Your task to perform on an android device: change notifications settings Image 0: 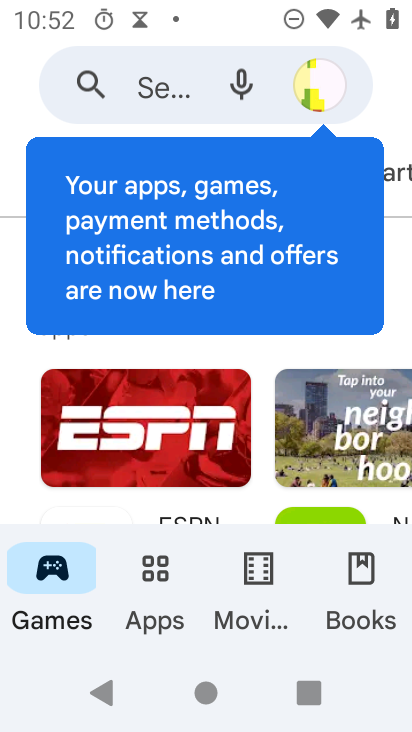
Step 0: press back button
Your task to perform on an android device: change notifications settings Image 1: 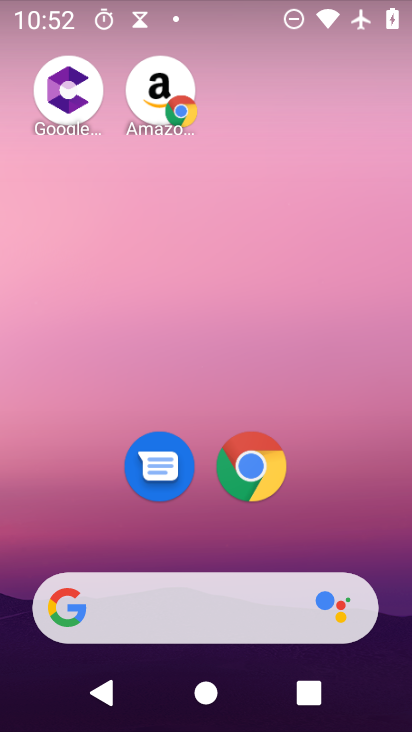
Step 1: drag from (411, 689) to (300, 55)
Your task to perform on an android device: change notifications settings Image 2: 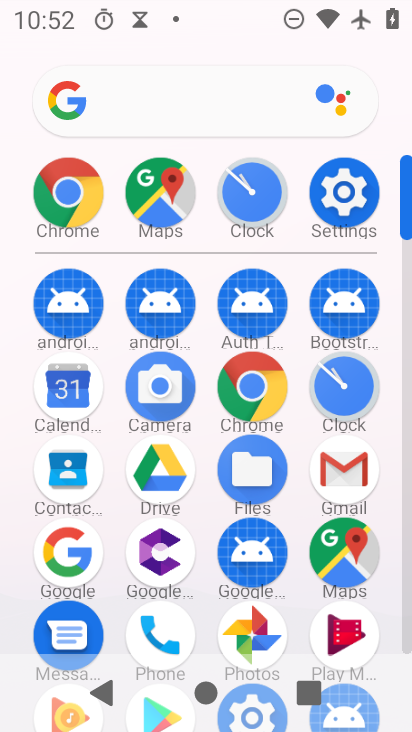
Step 2: click (344, 192)
Your task to perform on an android device: change notifications settings Image 3: 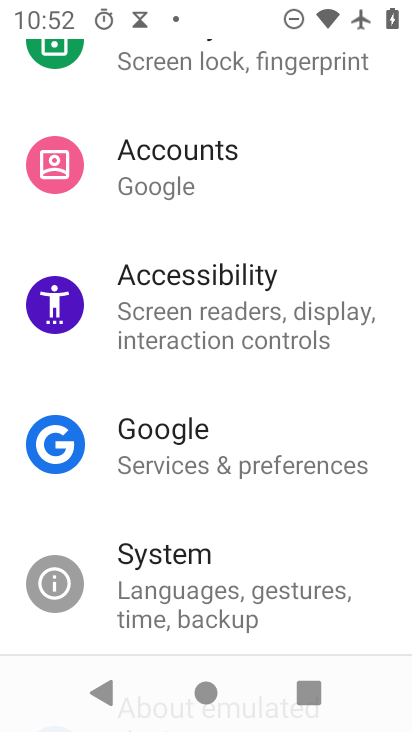
Step 3: drag from (256, 598) to (304, 131)
Your task to perform on an android device: change notifications settings Image 4: 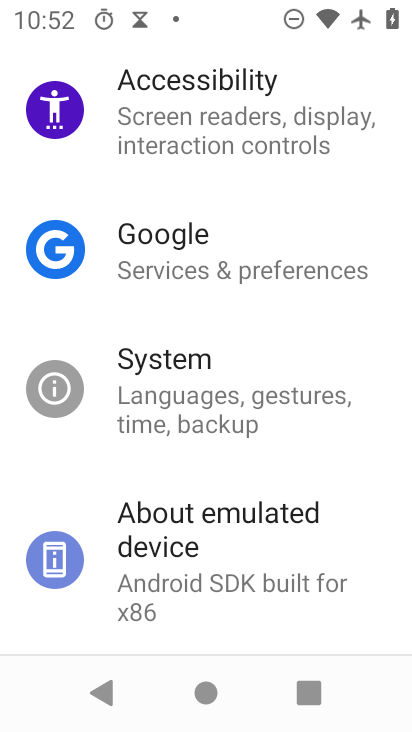
Step 4: drag from (301, 147) to (262, 564)
Your task to perform on an android device: change notifications settings Image 5: 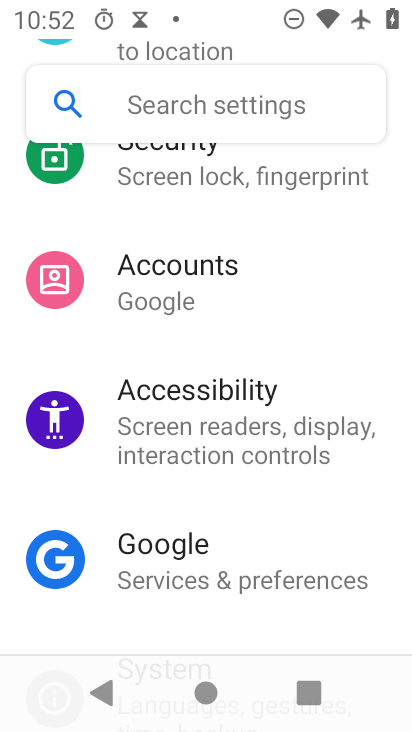
Step 5: drag from (279, 187) to (269, 568)
Your task to perform on an android device: change notifications settings Image 6: 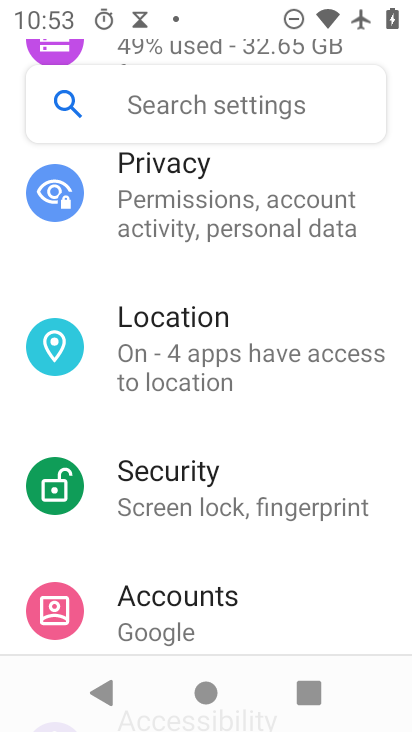
Step 6: drag from (306, 290) to (265, 606)
Your task to perform on an android device: change notifications settings Image 7: 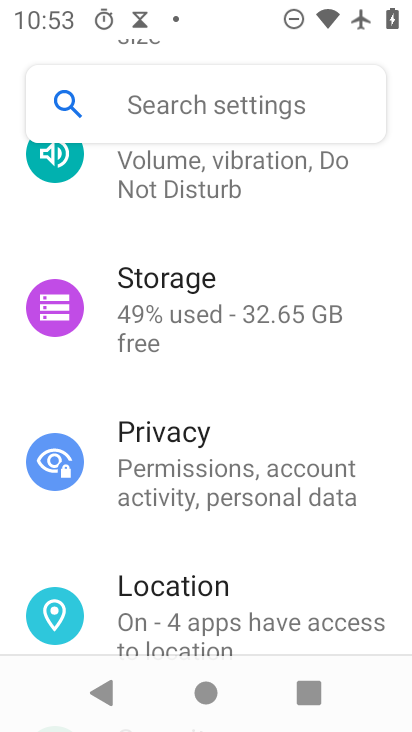
Step 7: drag from (304, 235) to (271, 597)
Your task to perform on an android device: change notifications settings Image 8: 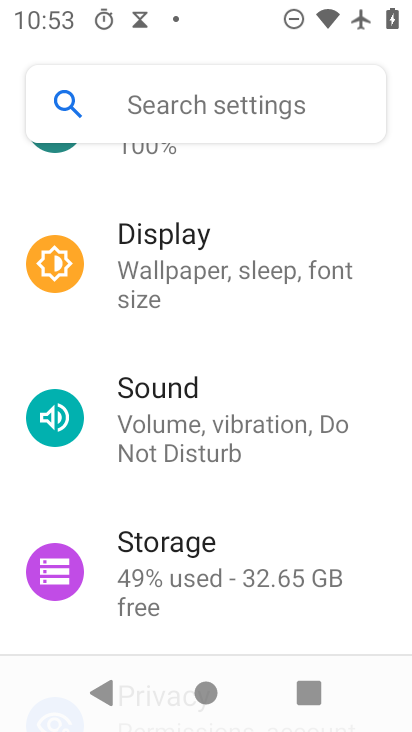
Step 8: drag from (313, 288) to (310, 614)
Your task to perform on an android device: change notifications settings Image 9: 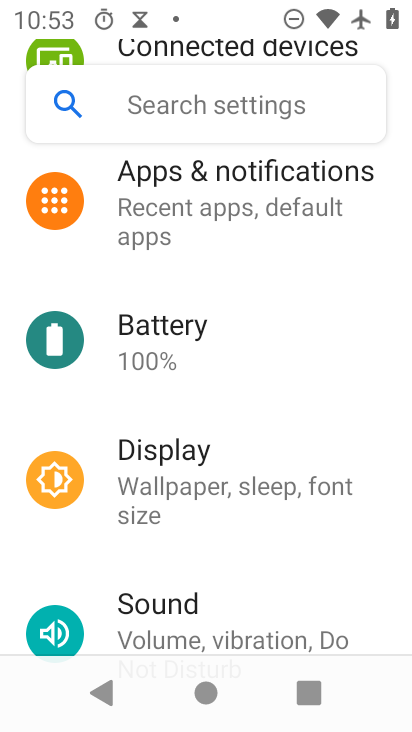
Step 9: drag from (321, 262) to (322, 550)
Your task to perform on an android device: change notifications settings Image 10: 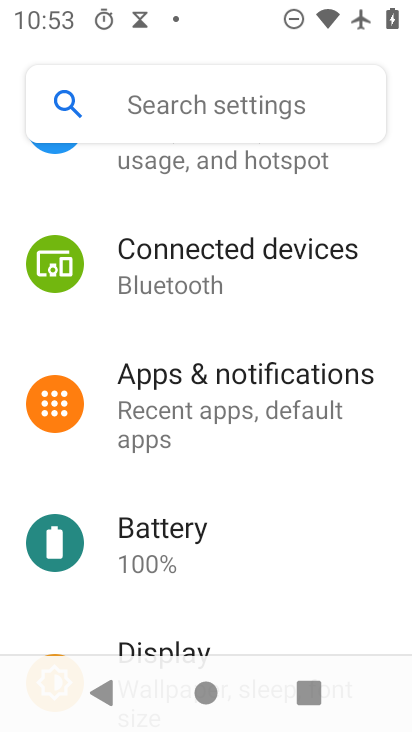
Step 10: click (224, 395)
Your task to perform on an android device: change notifications settings Image 11: 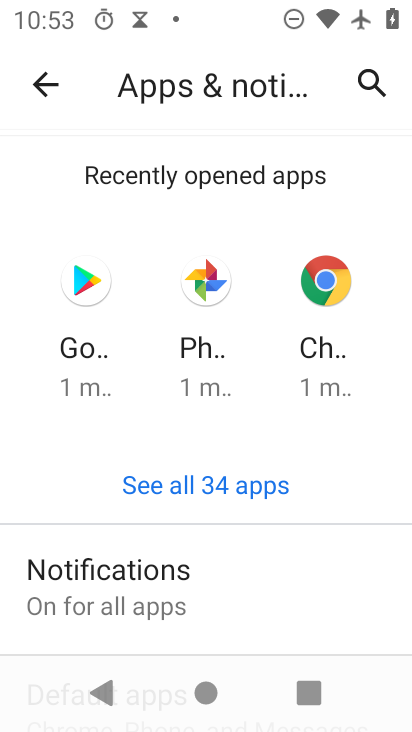
Step 11: drag from (287, 527) to (264, 177)
Your task to perform on an android device: change notifications settings Image 12: 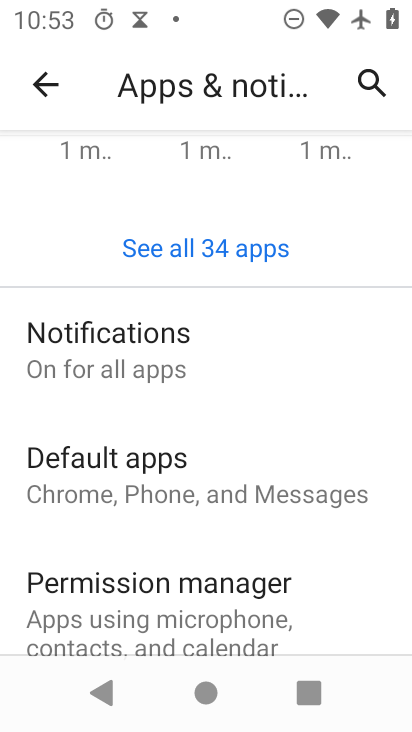
Step 12: click (197, 336)
Your task to perform on an android device: change notifications settings Image 13: 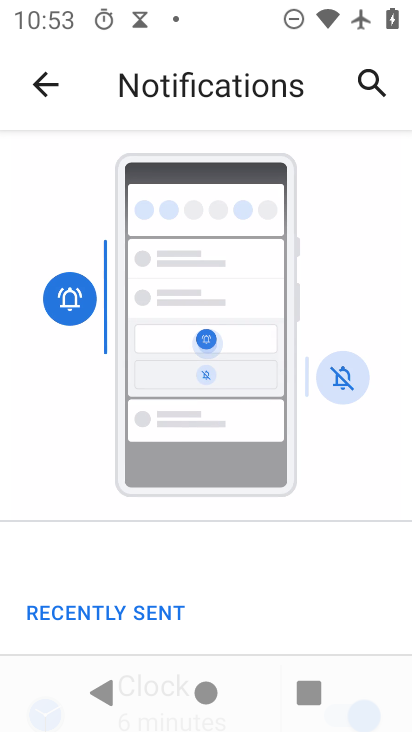
Step 13: drag from (239, 574) to (307, 143)
Your task to perform on an android device: change notifications settings Image 14: 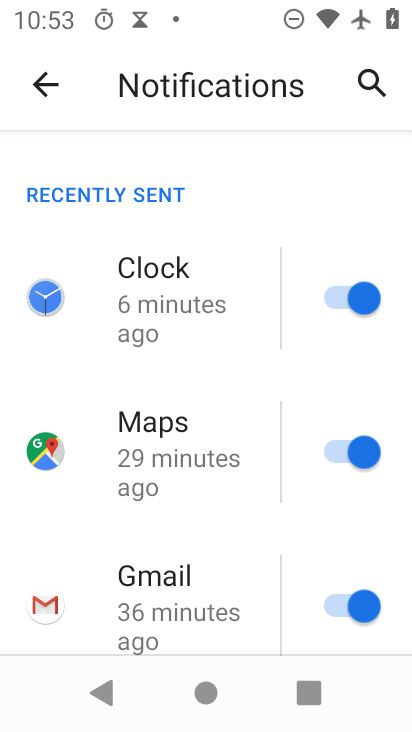
Step 14: drag from (211, 492) to (204, 162)
Your task to perform on an android device: change notifications settings Image 15: 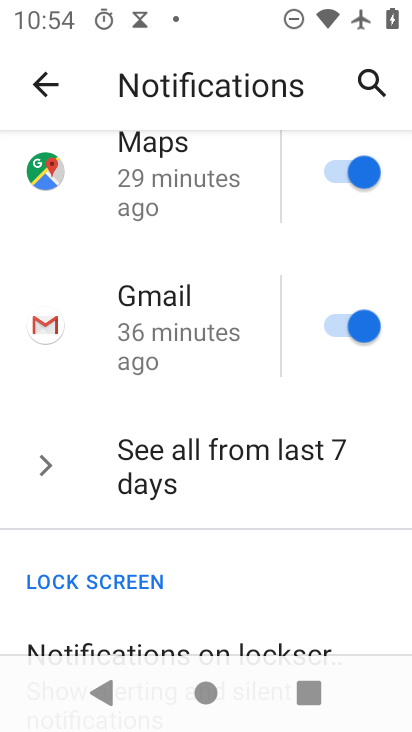
Step 15: drag from (241, 570) to (245, 142)
Your task to perform on an android device: change notifications settings Image 16: 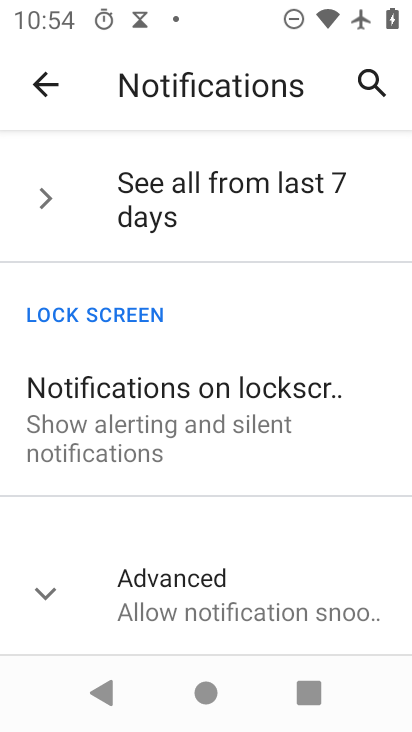
Step 16: click (4, 580)
Your task to perform on an android device: change notifications settings Image 17: 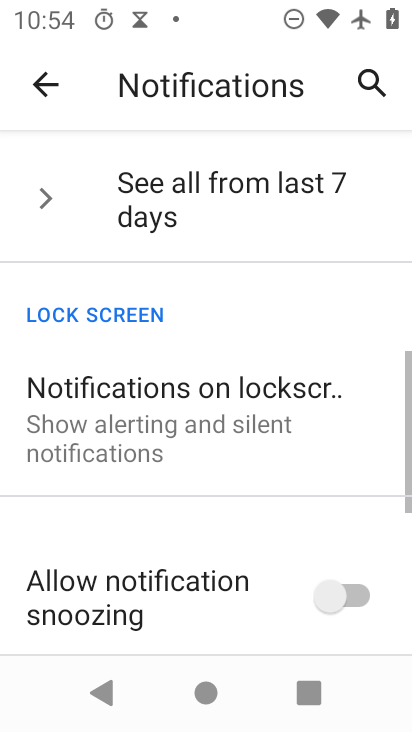
Step 17: task complete